Your task to perform on an android device: clear history in the chrome app Image 0: 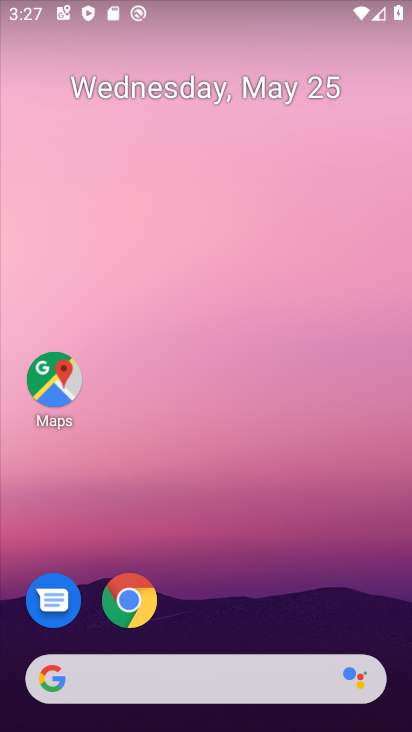
Step 0: click (119, 597)
Your task to perform on an android device: clear history in the chrome app Image 1: 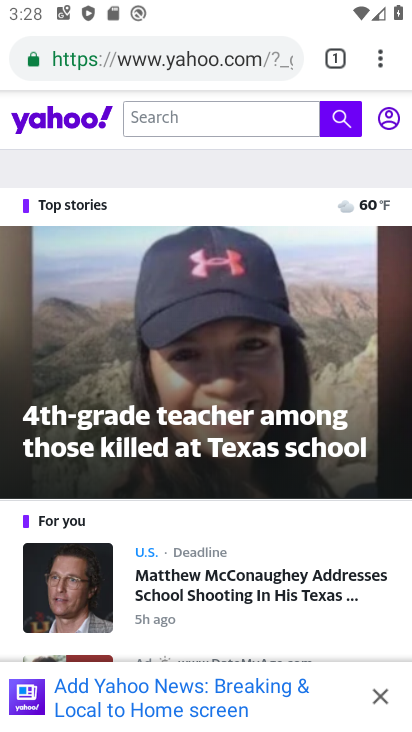
Step 1: click (372, 692)
Your task to perform on an android device: clear history in the chrome app Image 2: 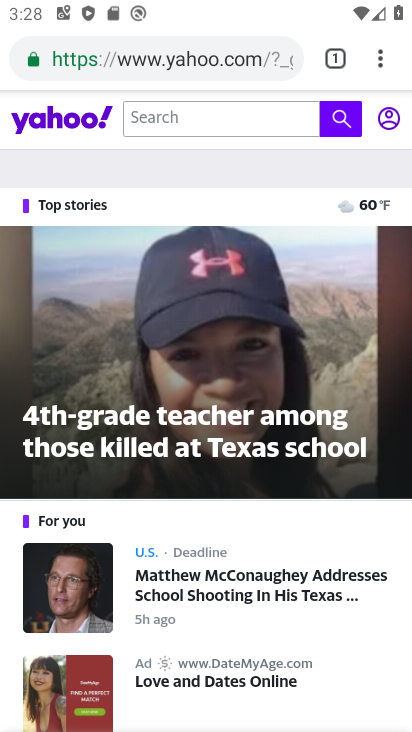
Step 2: click (380, 55)
Your task to perform on an android device: clear history in the chrome app Image 3: 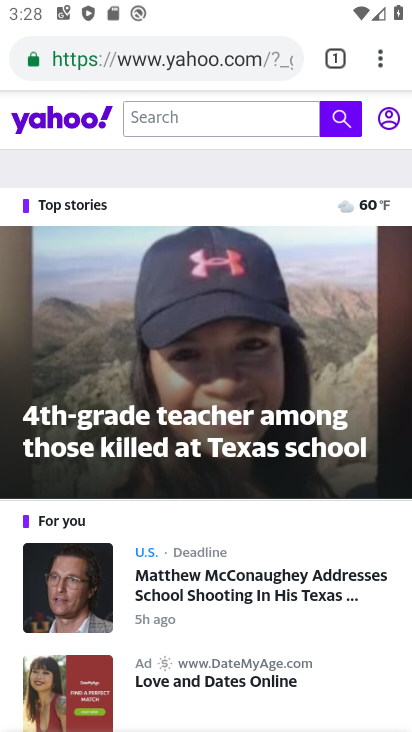
Step 3: click (372, 56)
Your task to perform on an android device: clear history in the chrome app Image 4: 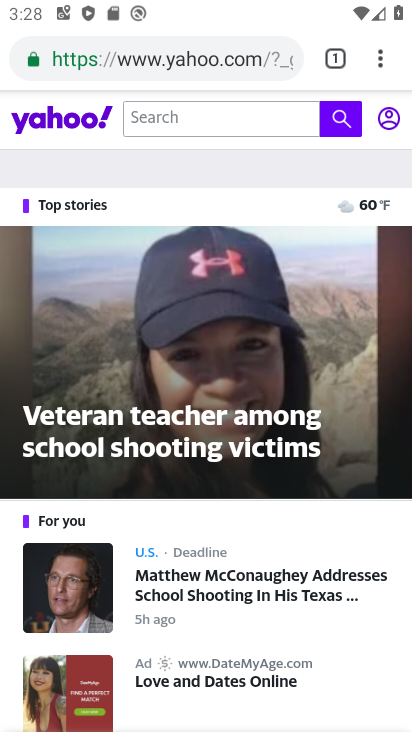
Step 4: click (387, 55)
Your task to perform on an android device: clear history in the chrome app Image 5: 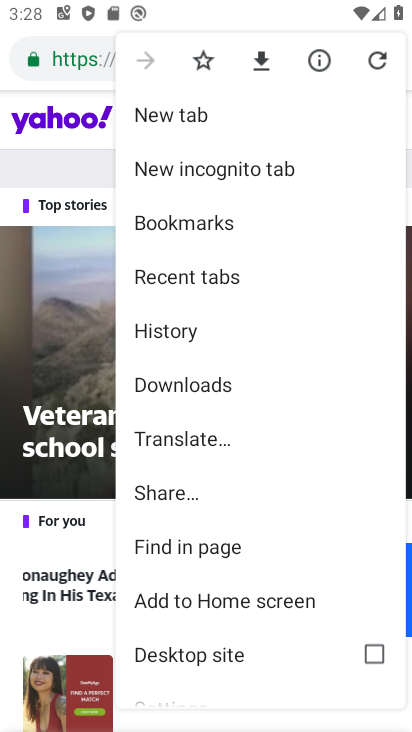
Step 5: drag from (194, 640) to (302, 233)
Your task to perform on an android device: clear history in the chrome app Image 6: 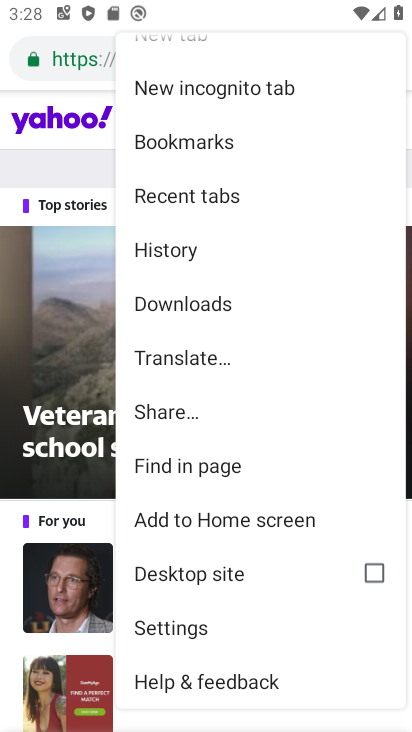
Step 6: click (169, 241)
Your task to perform on an android device: clear history in the chrome app Image 7: 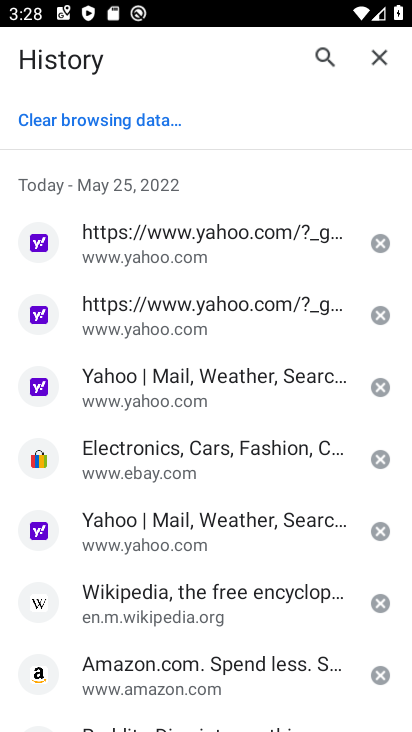
Step 7: click (114, 117)
Your task to perform on an android device: clear history in the chrome app Image 8: 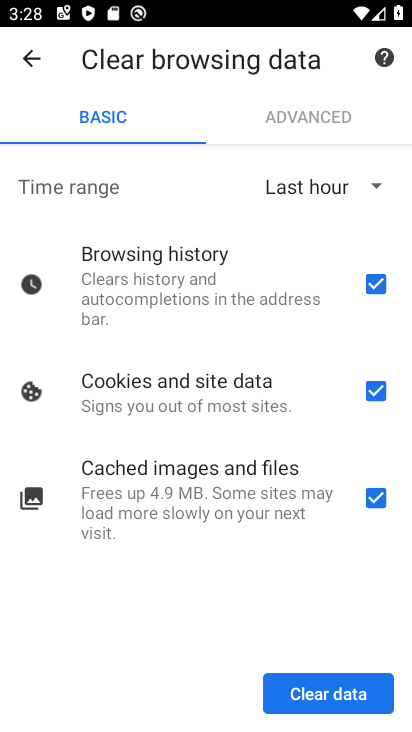
Step 8: click (351, 693)
Your task to perform on an android device: clear history in the chrome app Image 9: 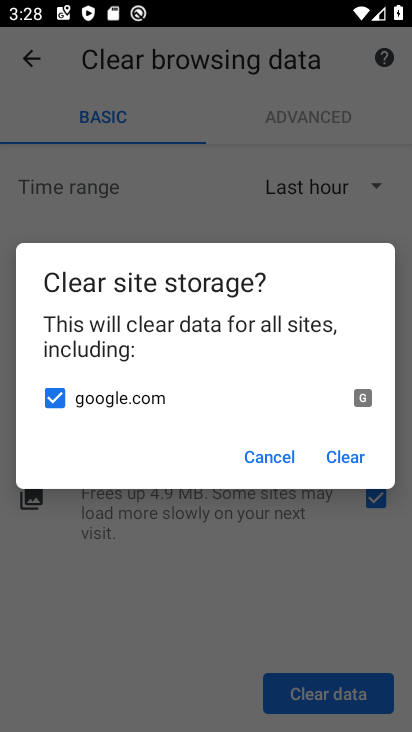
Step 9: click (360, 458)
Your task to perform on an android device: clear history in the chrome app Image 10: 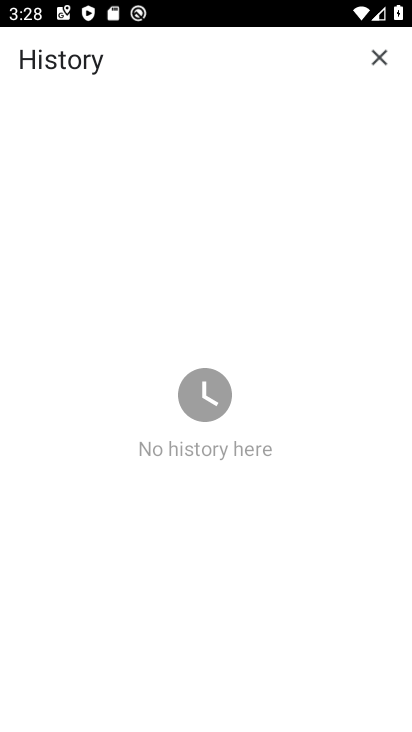
Step 10: task complete